Your task to perform on an android device: Go to Yahoo.com Image 0: 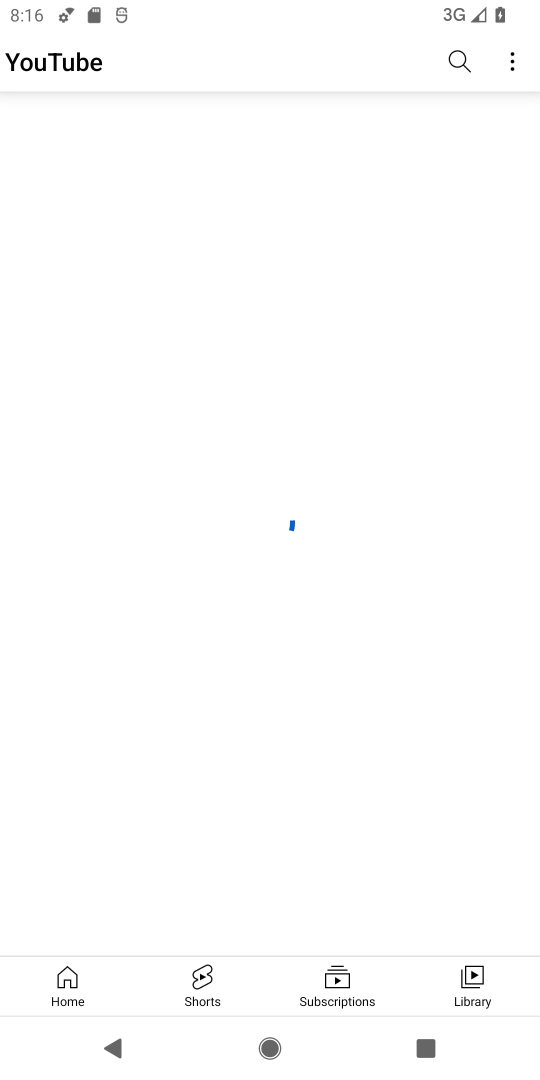
Step 0: press home button
Your task to perform on an android device: Go to Yahoo.com Image 1: 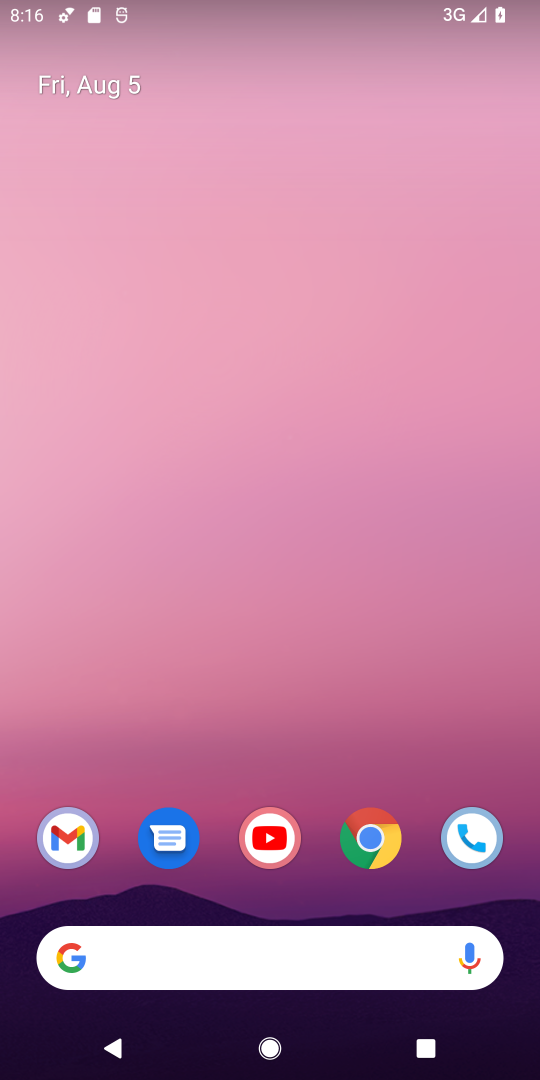
Step 1: click (365, 850)
Your task to perform on an android device: Go to Yahoo.com Image 2: 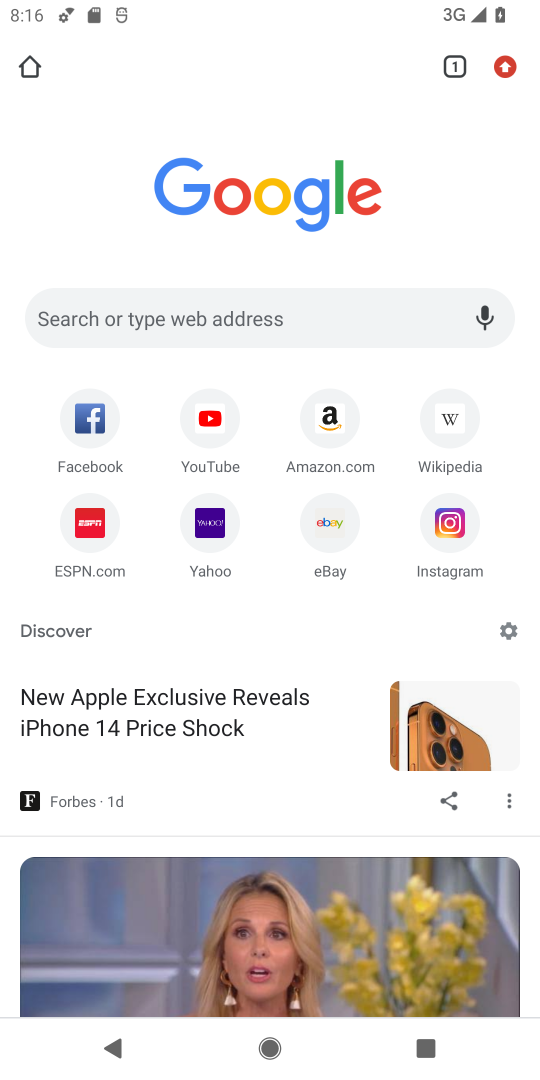
Step 2: click (203, 528)
Your task to perform on an android device: Go to Yahoo.com Image 3: 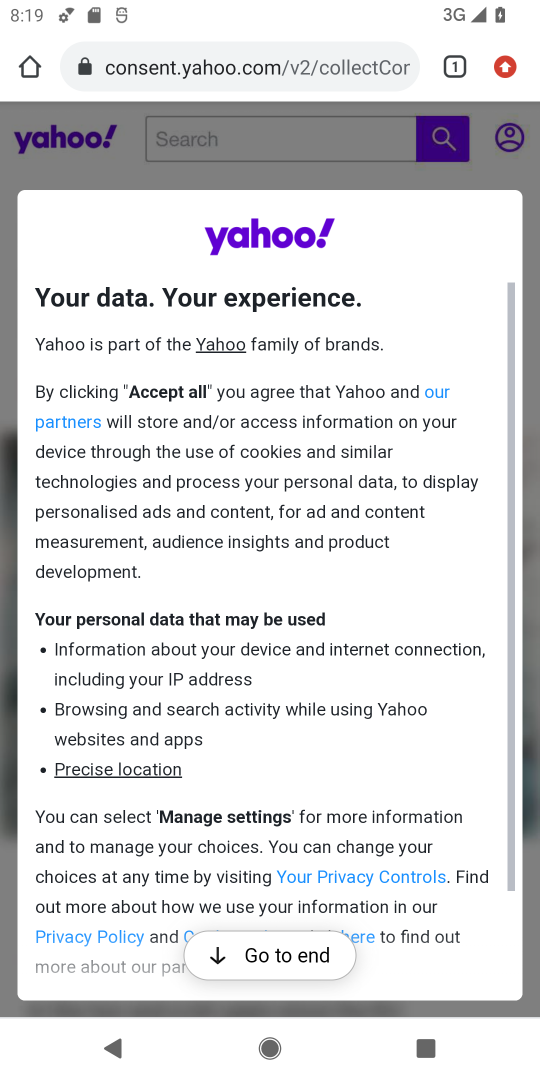
Step 3: task complete